Your task to perform on an android device: Check the news Image 0: 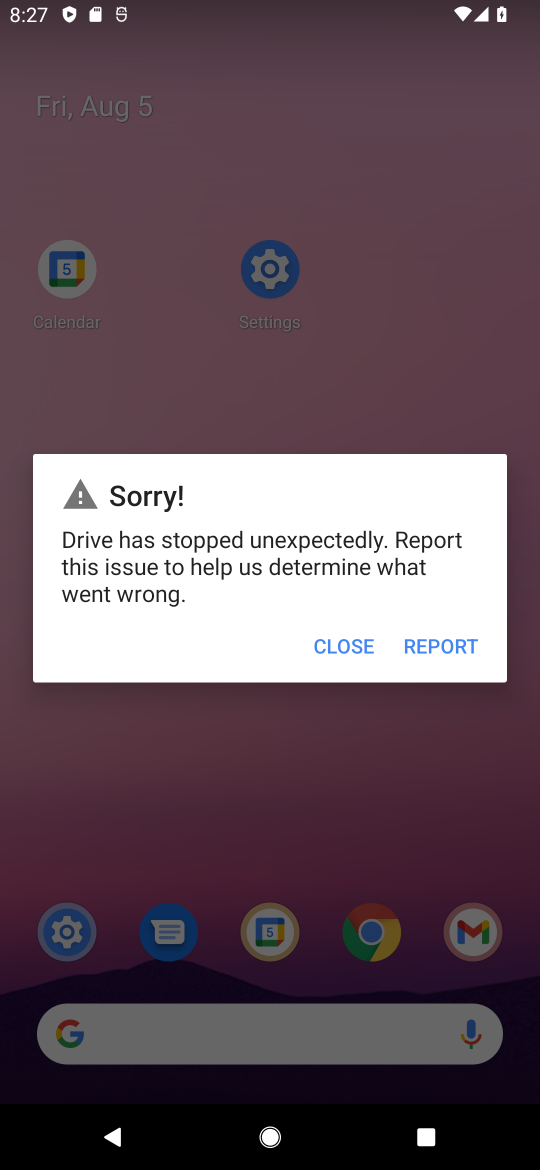
Step 0: click (322, 658)
Your task to perform on an android device: Check the news Image 1: 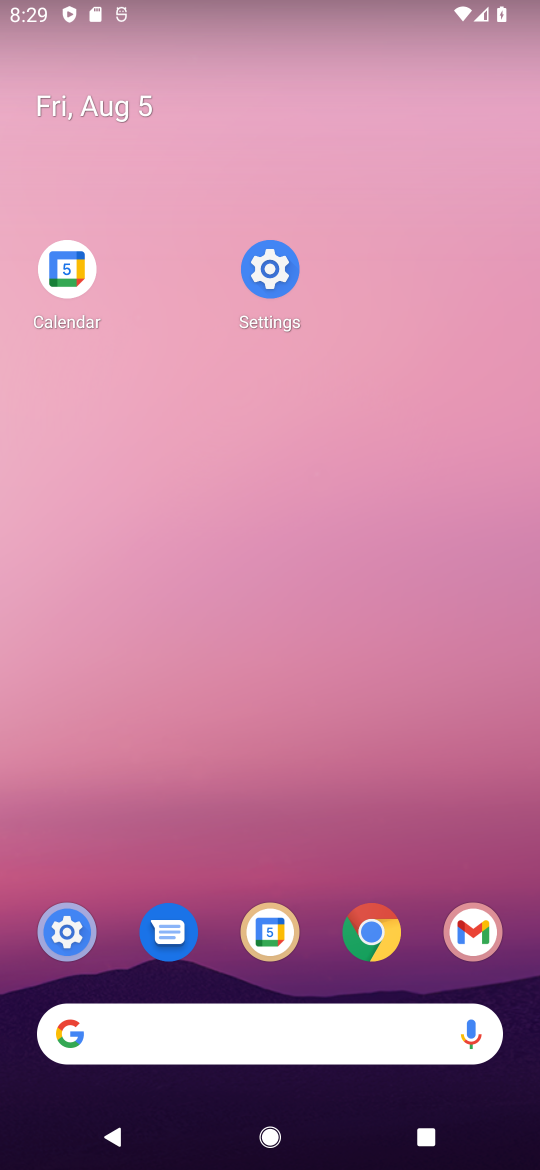
Step 1: drag from (296, 811) to (277, 231)
Your task to perform on an android device: Check the news Image 2: 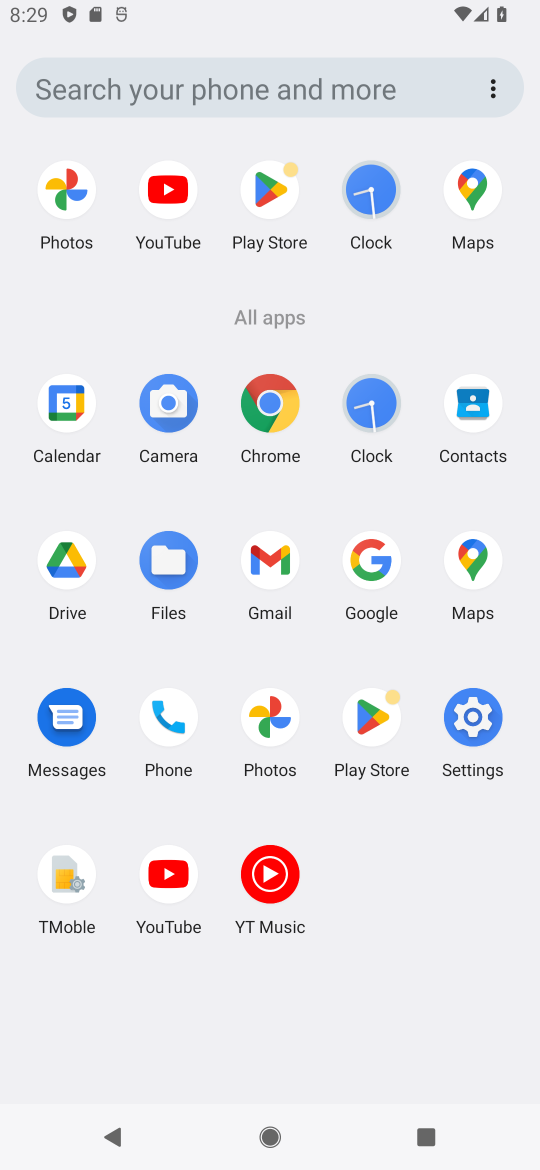
Step 2: click (370, 558)
Your task to perform on an android device: Check the news Image 3: 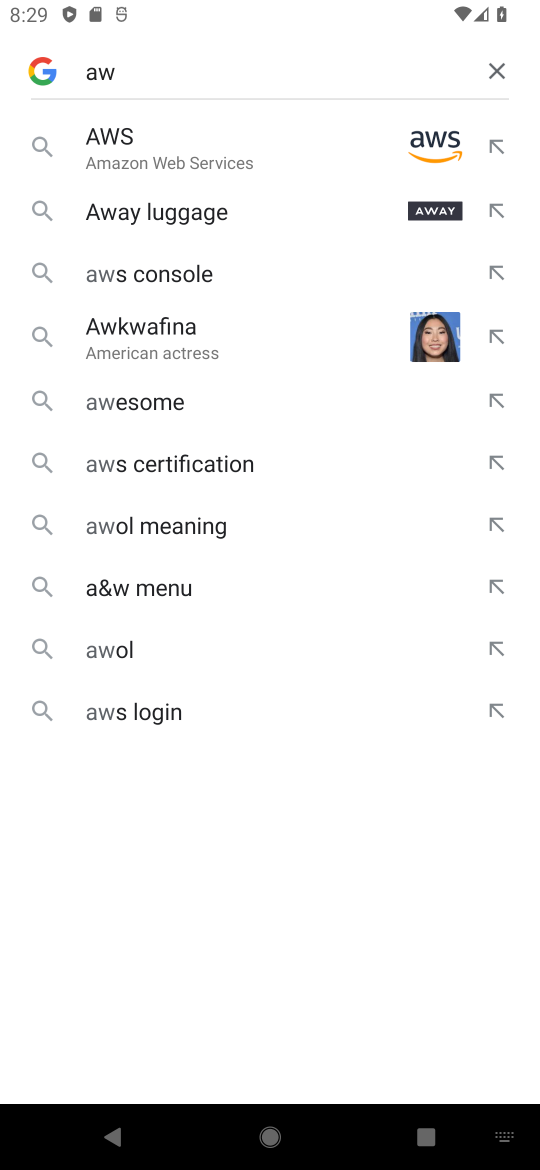
Step 3: click (168, 74)
Your task to perform on an android device: Check the news Image 4: 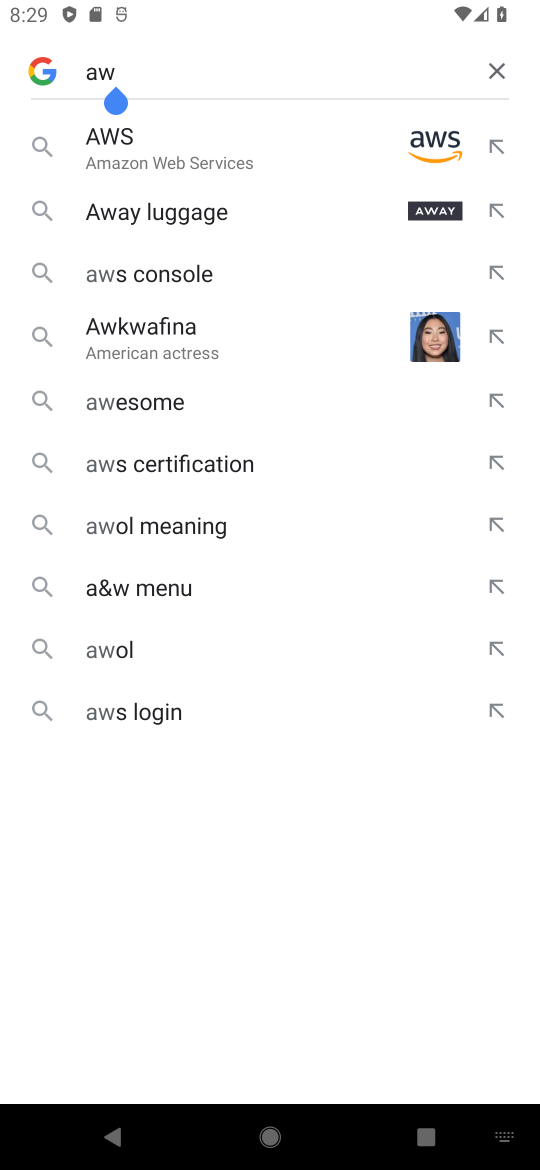
Step 4: click (498, 70)
Your task to perform on an android device: Check the news Image 5: 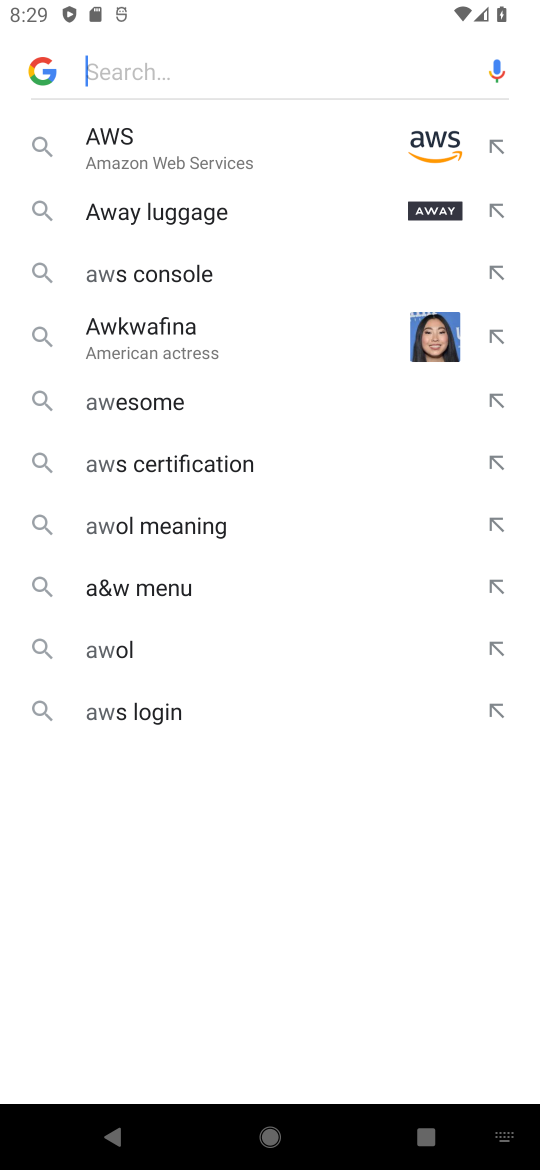
Step 5: type "news"
Your task to perform on an android device: Check the news Image 6: 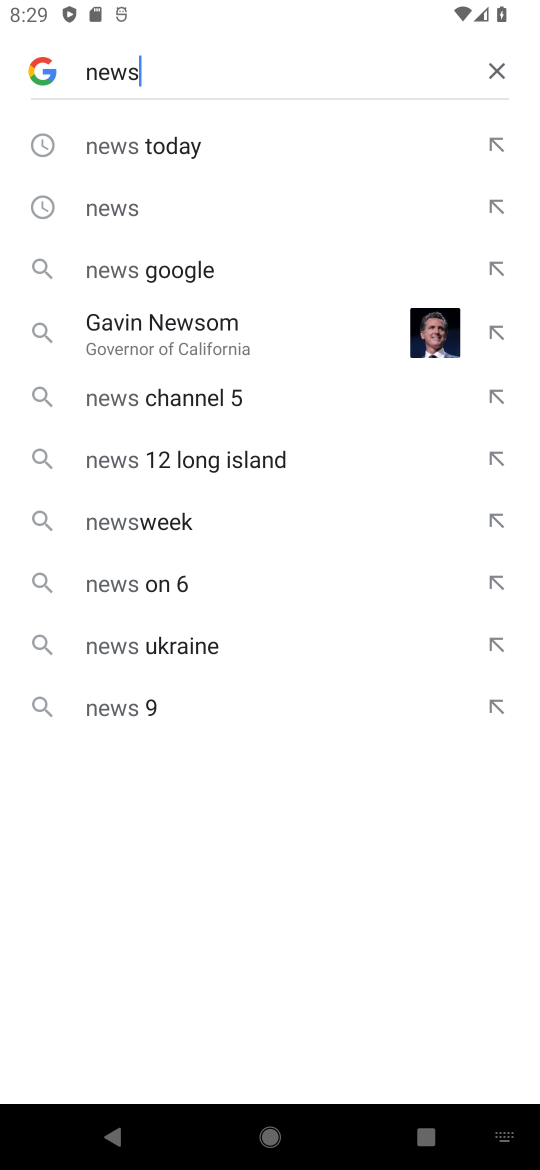
Step 6: click (207, 211)
Your task to perform on an android device: Check the news Image 7: 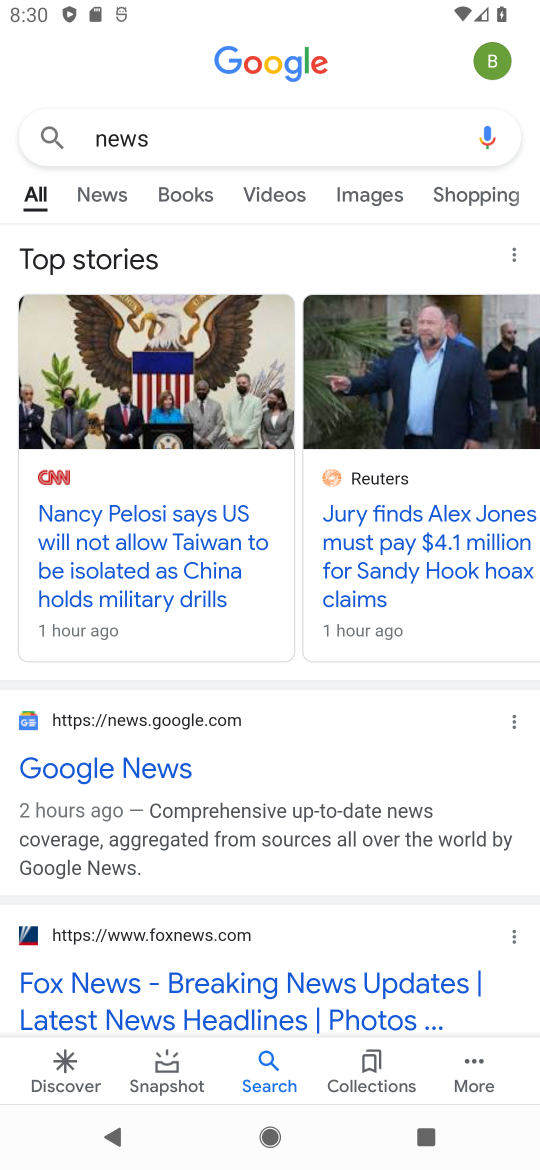
Step 7: task complete